Your task to perform on an android device: change the clock display to digital Image 0: 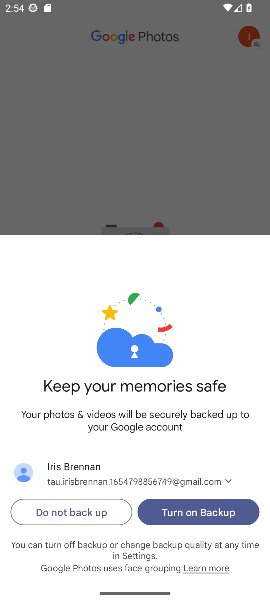
Step 0: press home button
Your task to perform on an android device: change the clock display to digital Image 1: 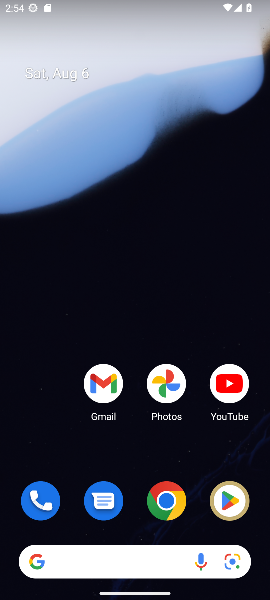
Step 1: drag from (123, 453) to (90, 114)
Your task to perform on an android device: change the clock display to digital Image 2: 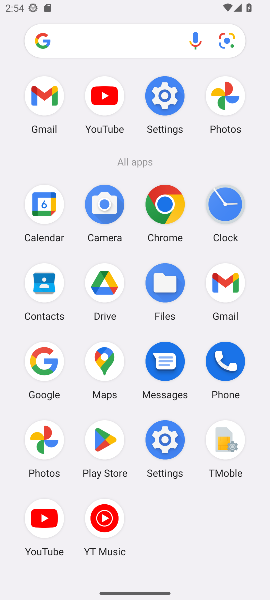
Step 2: click (231, 203)
Your task to perform on an android device: change the clock display to digital Image 3: 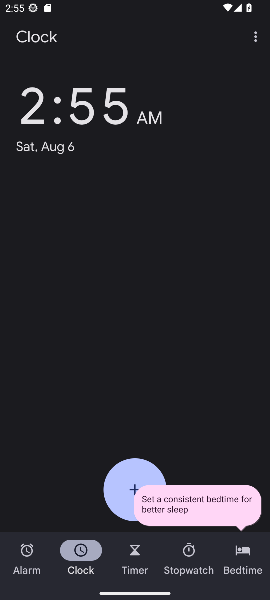
Step 3: click (257, 36)
Your task to perform on an android device: change the clock display to digital Image 4: 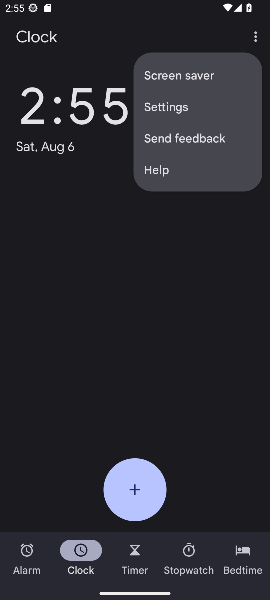
Step 4: click (184, 101)
Your task to perform on an android device: change the clock display to digital Image 5: 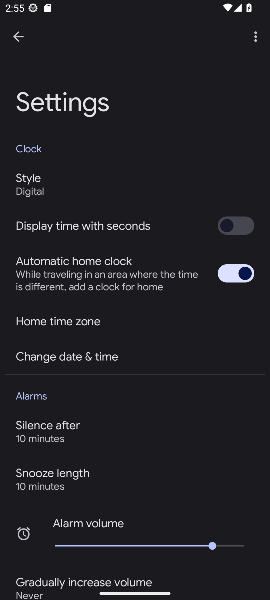
Step 5: task complete